Your task to perform on an android device: Open calendar and show me the first week of next month Image 0: 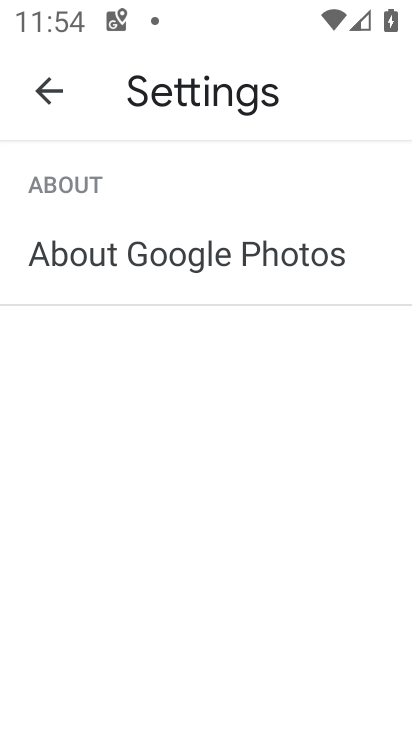
Step 0: press home button
Your task to perform on an android device: Open calendar and show me the first week of next month Image 1: 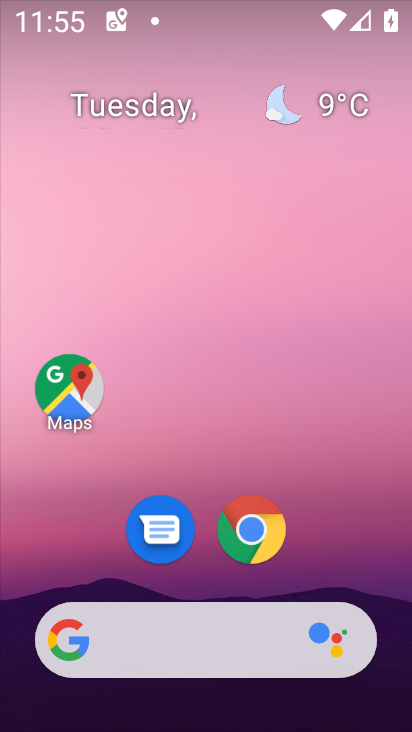
Step 1: drag from (263, 546) to (259, 181)
Your task to perform on an android device: Open calendar and show me the first week of next month Image 2: 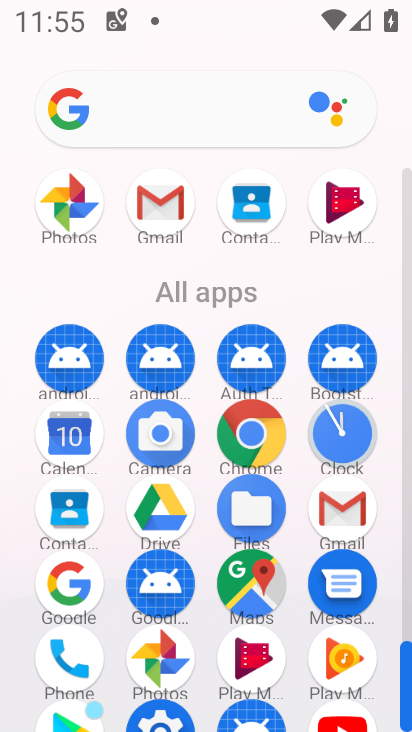
Step 2: click (52, 456)
Your task to perform on an android device: Open calendar and show me the first week of next month Image 3: 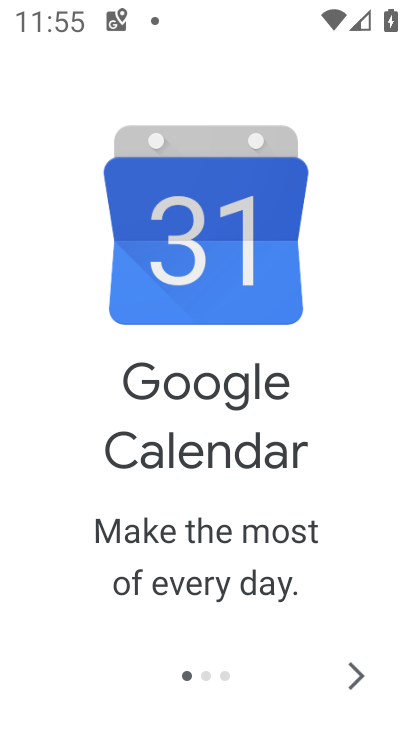
Step 3: click (340, 681)
Your task to perform on an android device: Open calendar and show me the first week of next month Image 4: 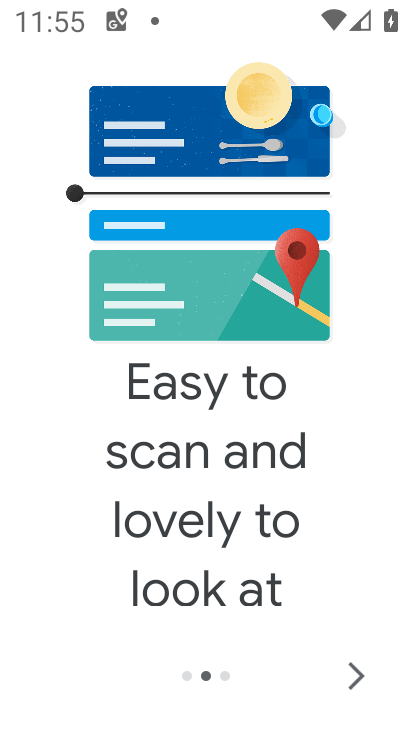
Step 4: click (347, 682)
Your task to perform on an android device: Open calendar and show me the first week of next month Image 5: 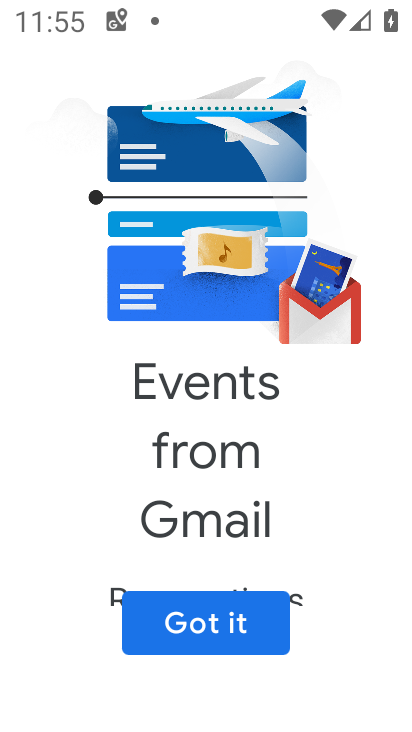
Step 5: click (267, 635)
Your task to perform on an android device: Open calendar and show me the first week of next month Image 6: 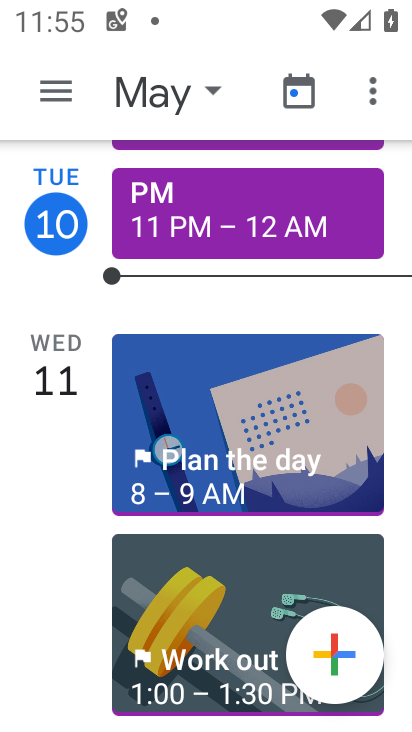
Step 6: click (199, 114)
Your task to perform on an android device: Open calendar and show me the first week of next month Image 7: 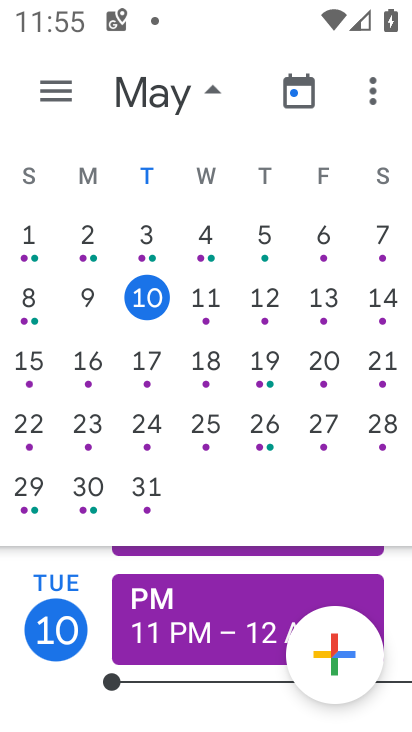
Step 7: drag from (322, 328) to (2, 427)
Your task to perform on an android device: Open calendar and show me the first week of next month Image 8: 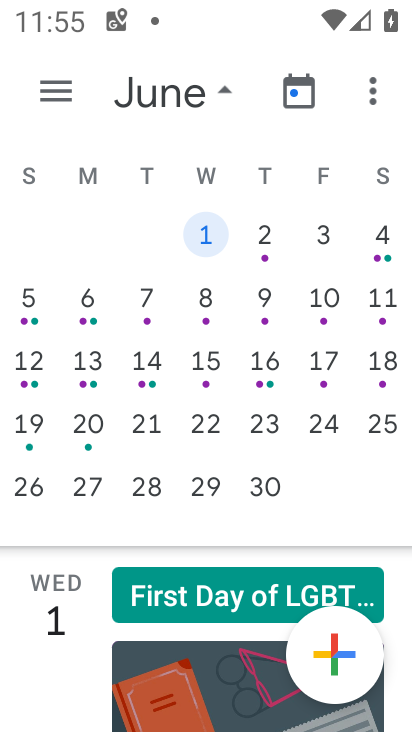
Step 8: click (261, 245)
Your task to perform on an android device: Open calendar and show me the first week of next month Image 9: 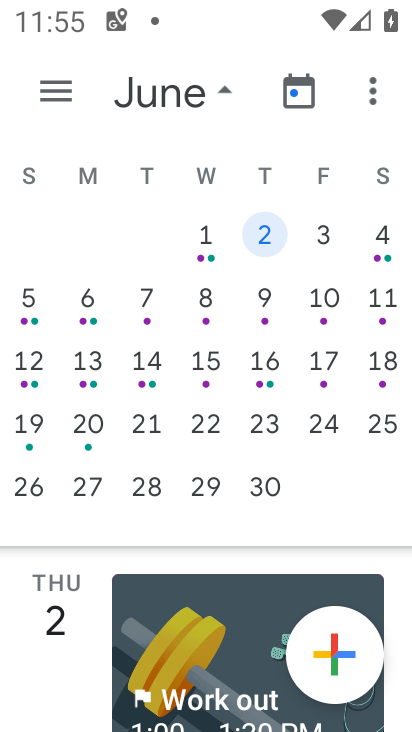
Step 9: click (327, 244)
Your task to perform on an android device: Open calendar and show me the first week of next month Image 10: 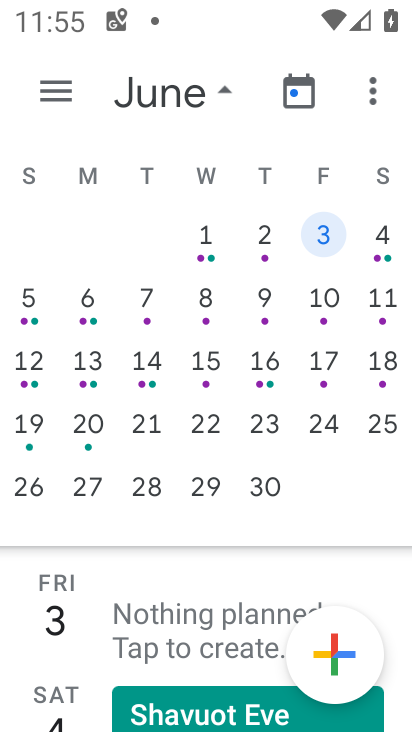
Step 10: click (387, 242)
Your task to perform on an android device: Open calendar and show me the first week of next month Image 11: 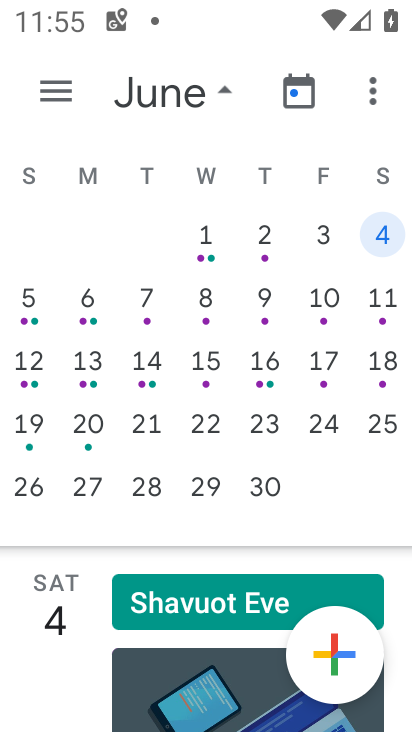
Step 11: task complete